Your task to perform on an android device: turn vacation reply on in the gmail app Image 0: 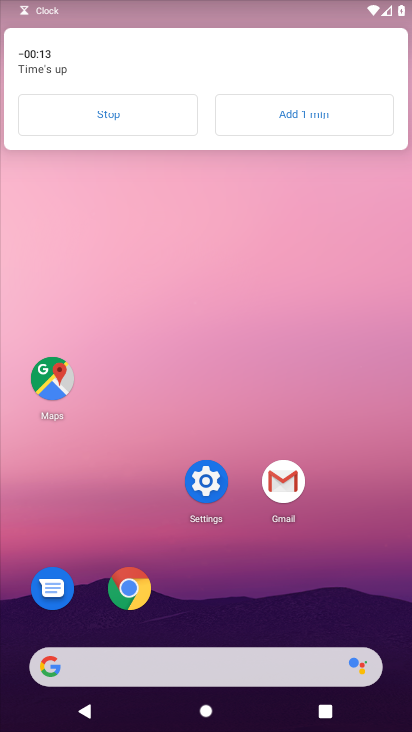
Step 0: click (137, 114)
Your task to perform on an android device: turn vacation reply on in the gmail app Image 1: 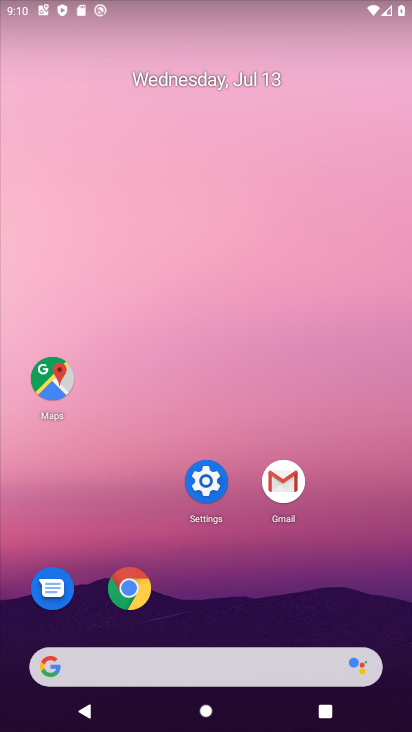
Step 1: click (291, 469)
Your task to perform on an android device: turn vacation reply on in the gmail app Image 2: 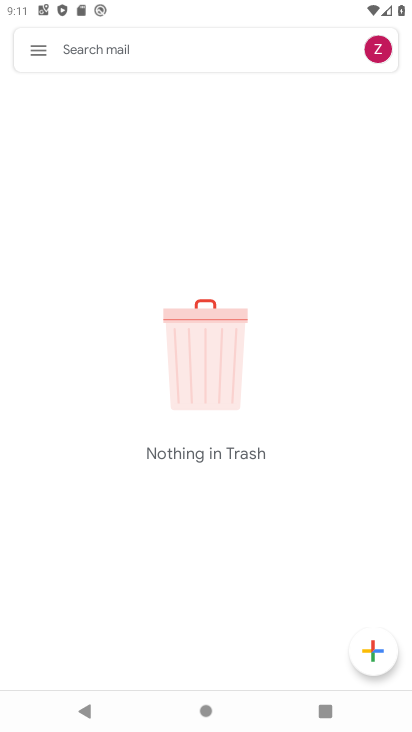
Step 2: task complete